Your task to perform on an android device: Show me popular games on the Play Store Image 0: 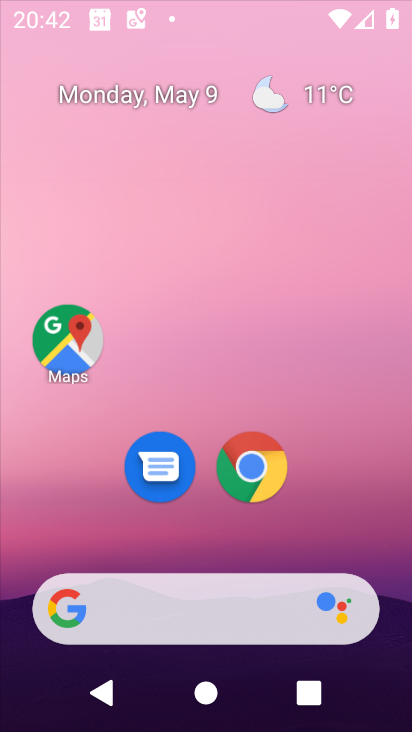
Step 0: drag from (275, 553) to (297, 173)
Your task to perform on an android device: Show me popular games on the Play Store Image 1: 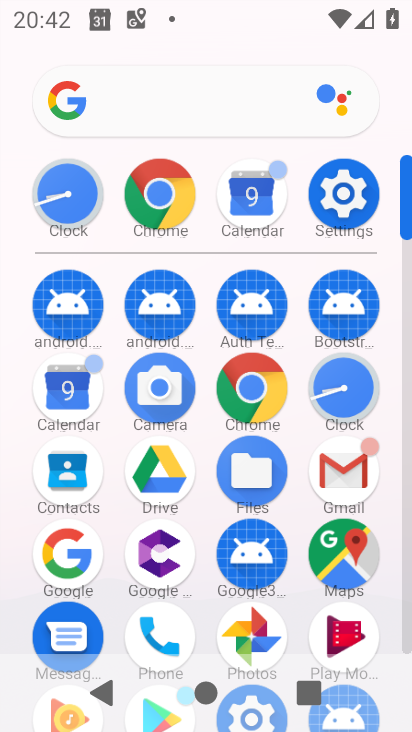
Step 1: drag from (185, 554) to (245, 338)
Your task to perform on an android device: Show me popular games on the Play Store Image 2: 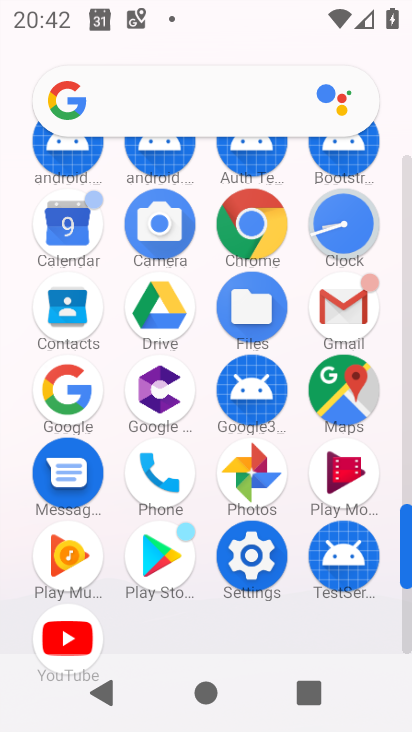
Step 2: click (167, 556)
Your task to perform on an android device: Show me popular games on the Play Store Image 3: 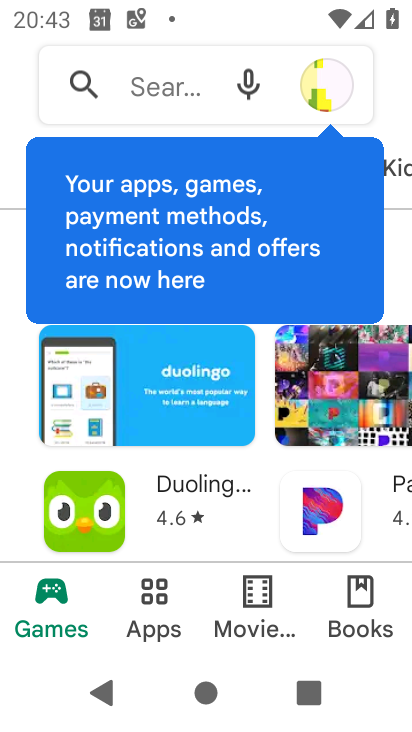
Step 3: task complete